Your task to perform on an android device: Open Google Maps Image 0: 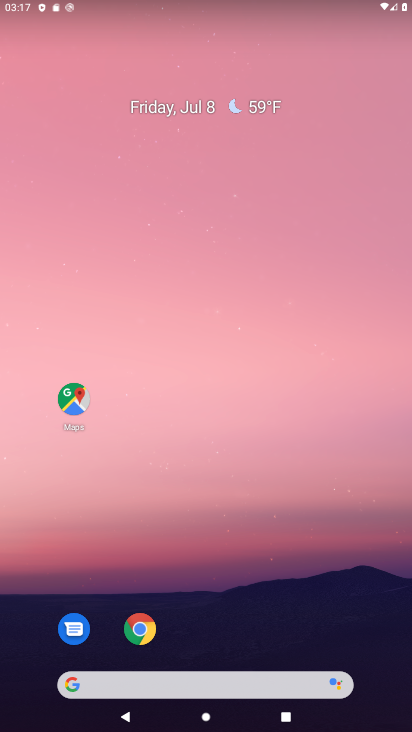
Step 0: press home button
Your task to perform on an android device: Open Google Maps Image 1: 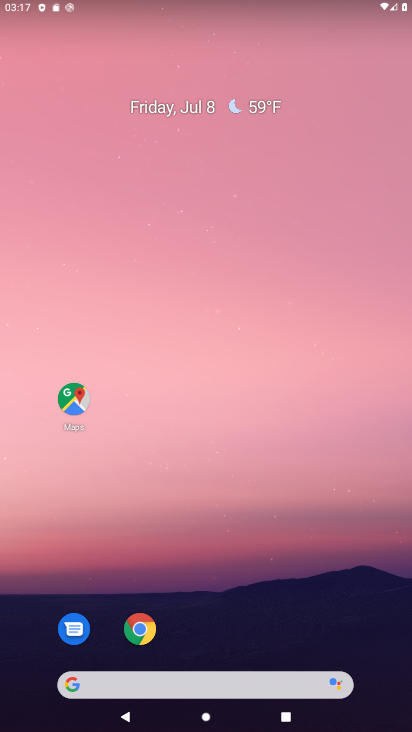
Step 1: click (71, 396)
Your task to perform on an android device: Open Google Maps Image 2: 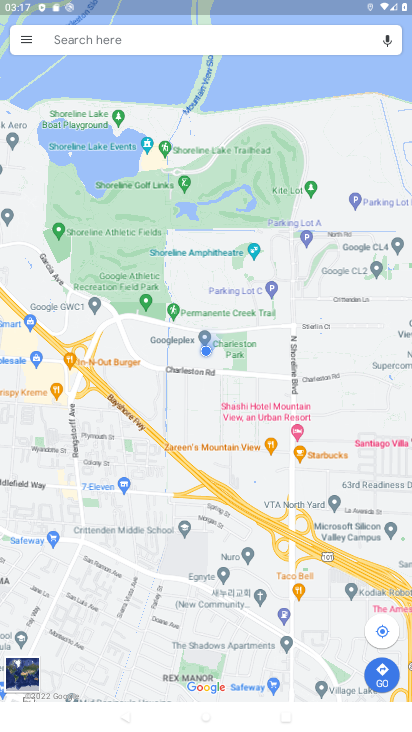
Step 2: task complete